Your task to perform on an android device: check battery use Image 0: 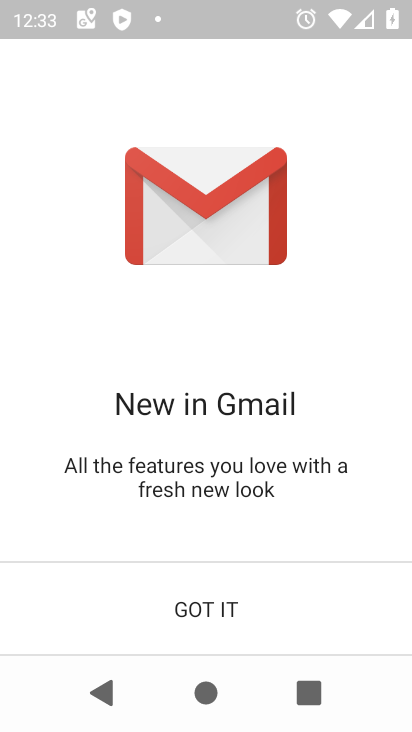
Step 0: click (277, 595)
Your task to perform on an android device: check battery use Image 1: 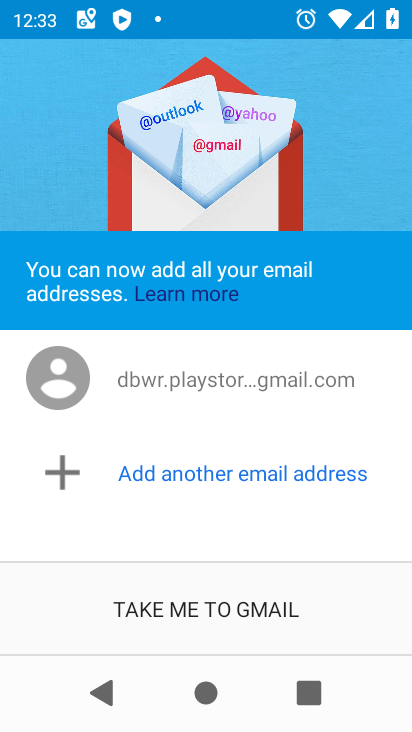
Step 1: press home button
Your task to perform on an android device: check battery use Image 2: 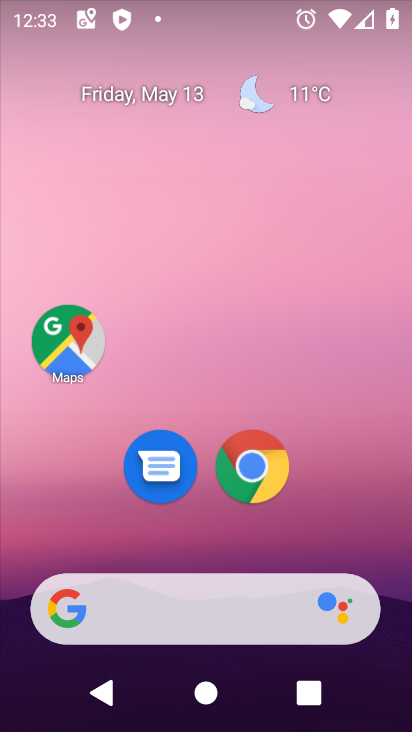
Step 2: drag from (387, 464) to (294, 153)
Your task to perform on an android device: check battery use Image 3: 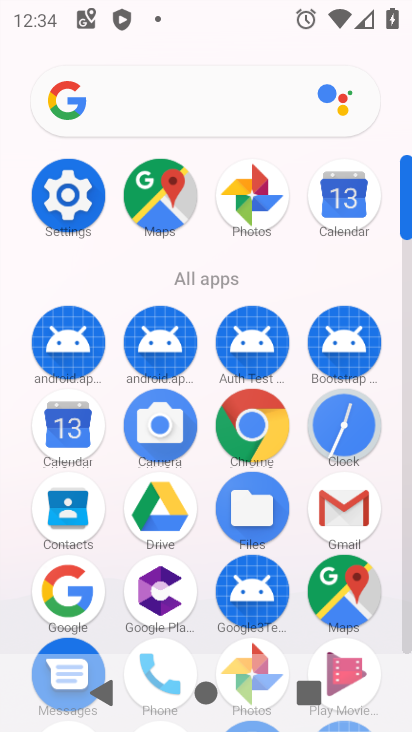
Step 3: click (90, 211)
Your task to perform on an android device: check battery use Image 4: 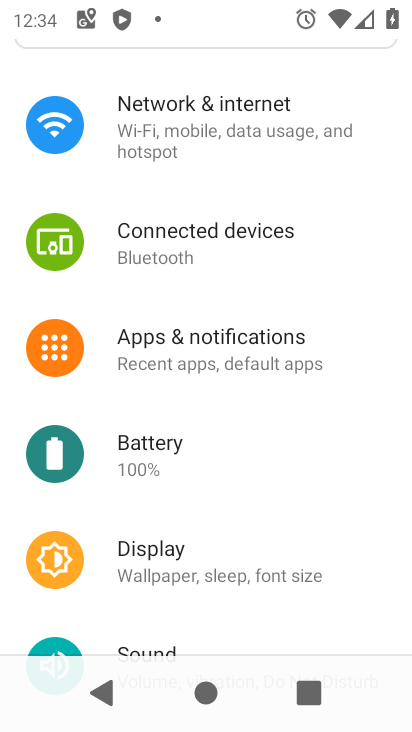
Step 4: click (238, 459)
Your task to perform on an android device: check battery use Image 5: 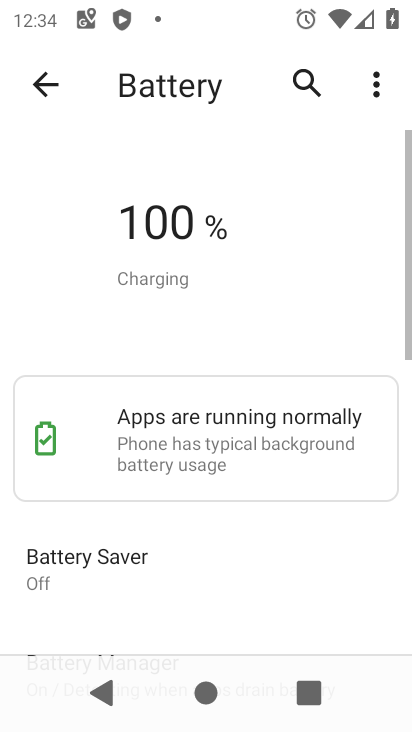
Step 5: click (391, 87)
Your task to perform on an android device: check battery use Image 6: 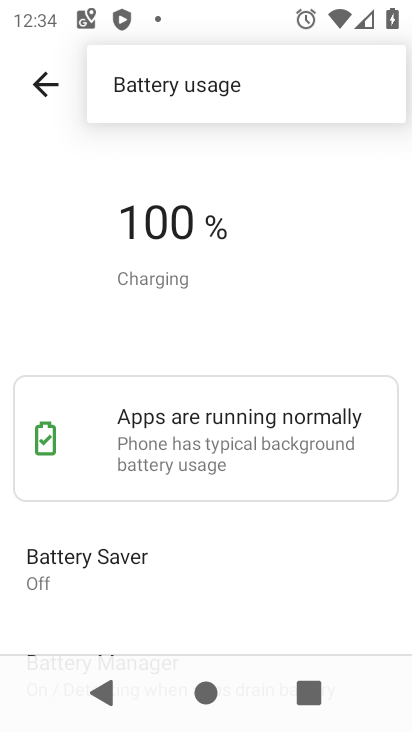
Step 6: click (266, 104)
Your task to perform on an android device: check battery use Image 7: 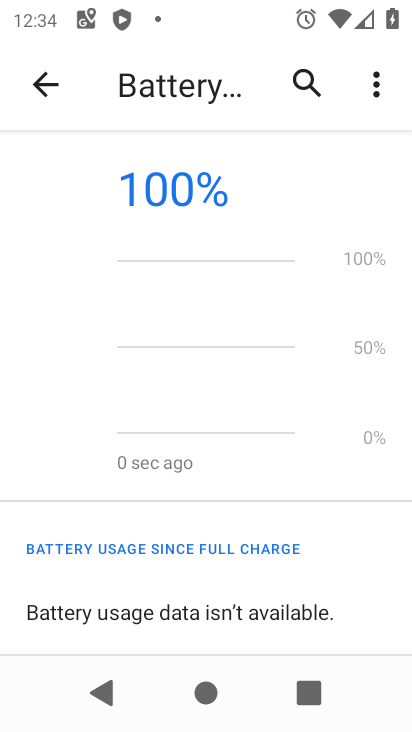
Step 7: task complete